Your task to perform on an android device: Find coffee shops on Maps Image 0: 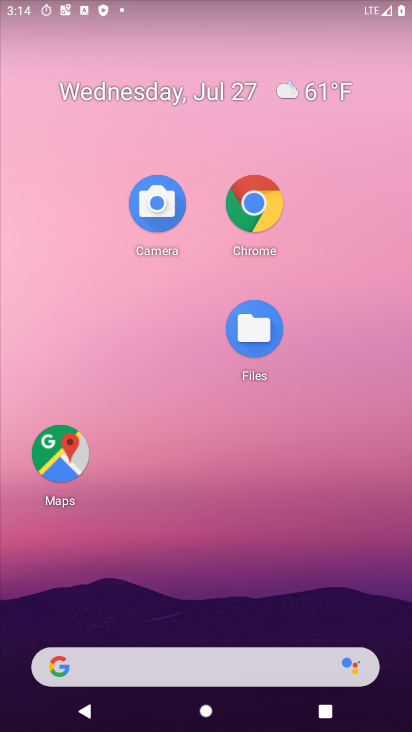
Step 0: click (73, 434)
Your task to perform on an android device: Find coffee shops on Maps Image 1: 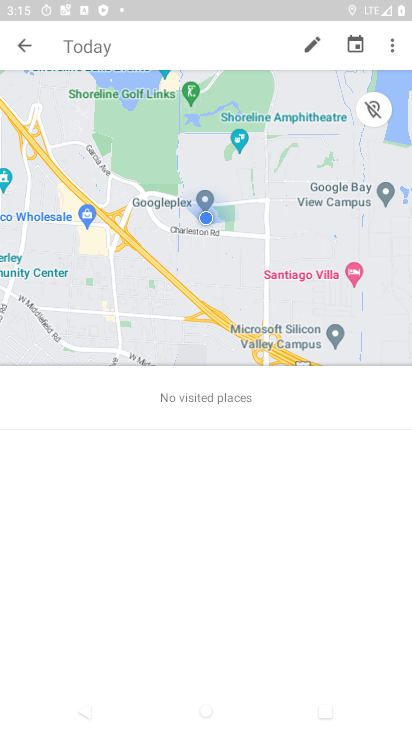
Step 1: click (17, 50)
Your task to perform on an android device: Find coffee shops on Maps Image 2: 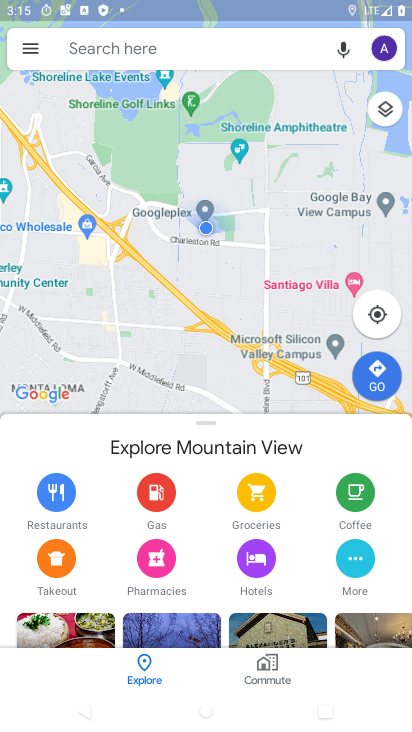
Step 2: click (191, 49)
Your task to perform on an android device: Find coffee shops on Maps Image 3: 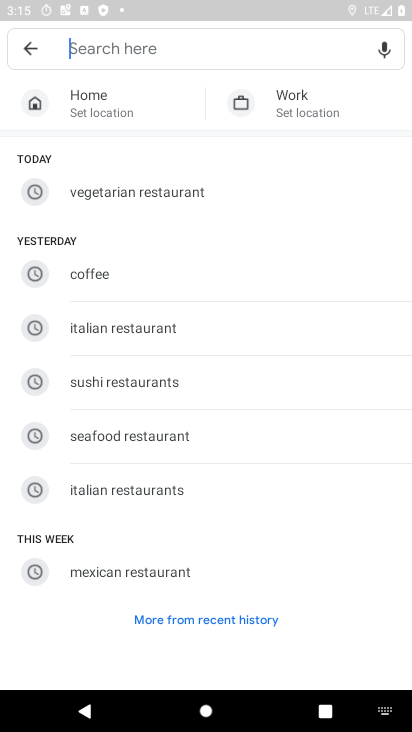
Step 3: type "coffee shops"
Your task to perform on an android device: Find coffee shops on Maps Image 4: 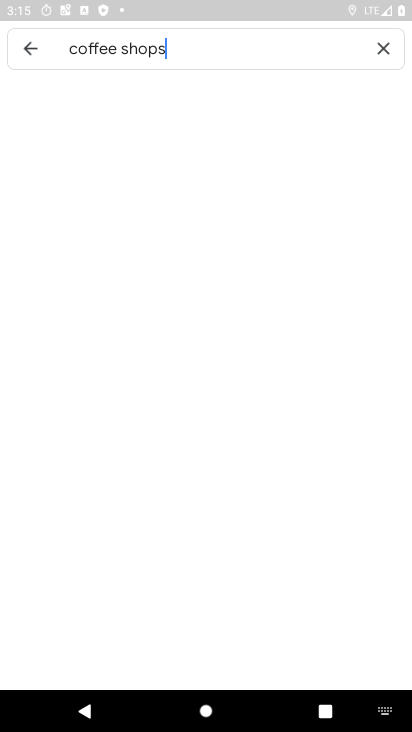
Step 4: type ""
Your task to perform on an android device: Find coffee shops on Maps Image 5: 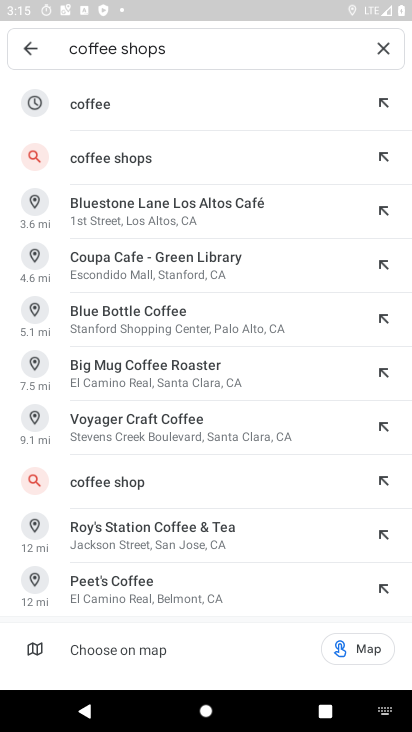
Step 5: click (148, 150)
Your task to perform on an android device: Find coffee shops on Maps Image 6: 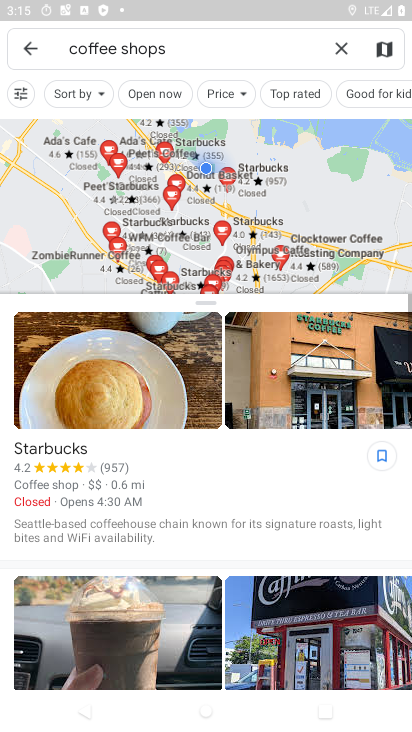
Step 6: task complete